Your task to perform on an android device: Search for the new Air Jordan 13 on Nike.com Image 0: 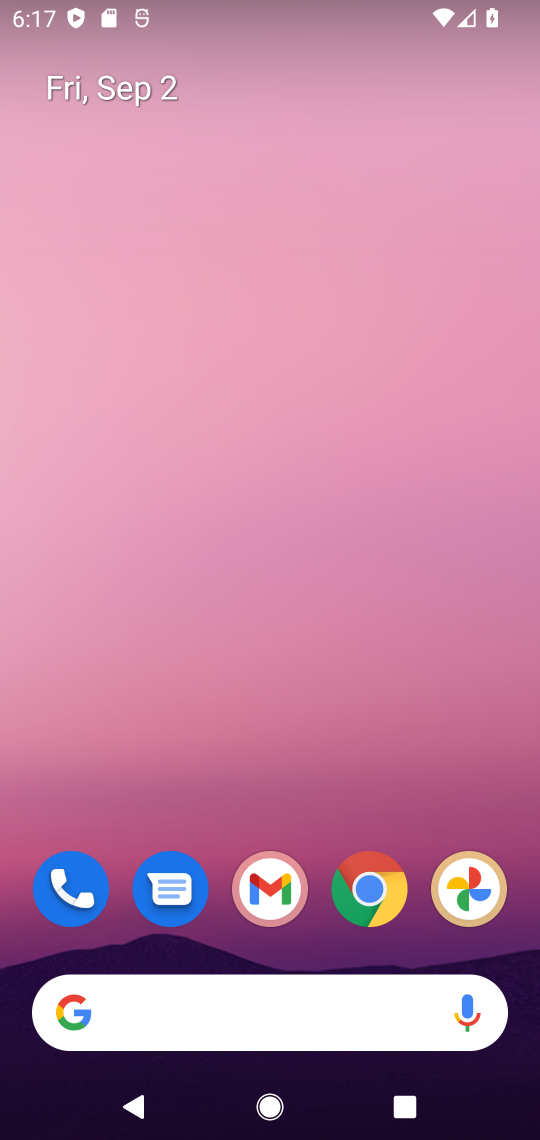
Step 0: click (255, 993)
Your task to perform on an android device: Search for the new Air Jordan 13 on Nike.com Image 1: 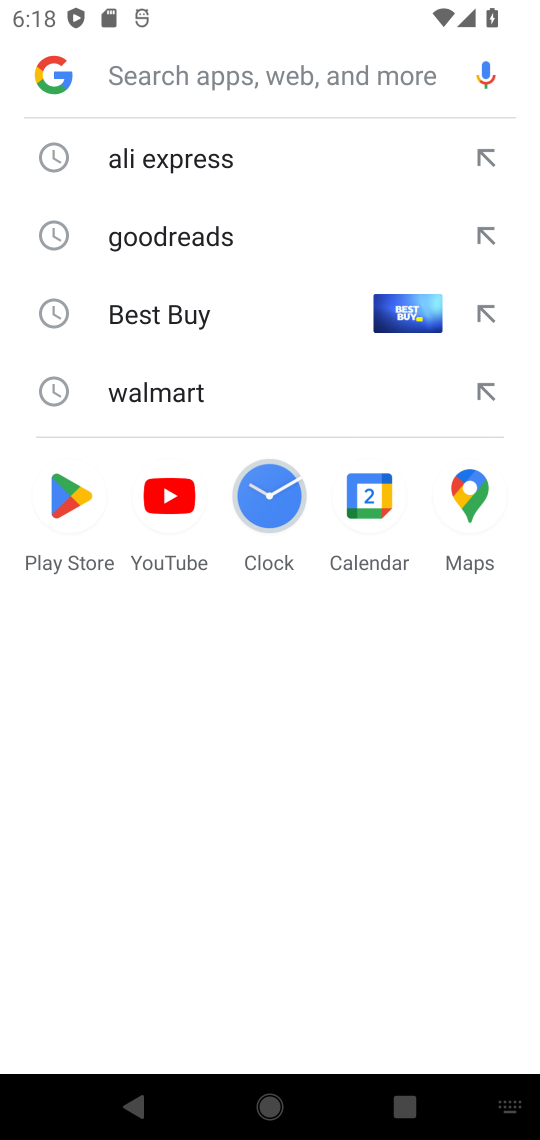
Step 1: type "Nike.com"
Your task to perform on an android device: Search for the new Air Jordan 13 on Nike.com Image 2: 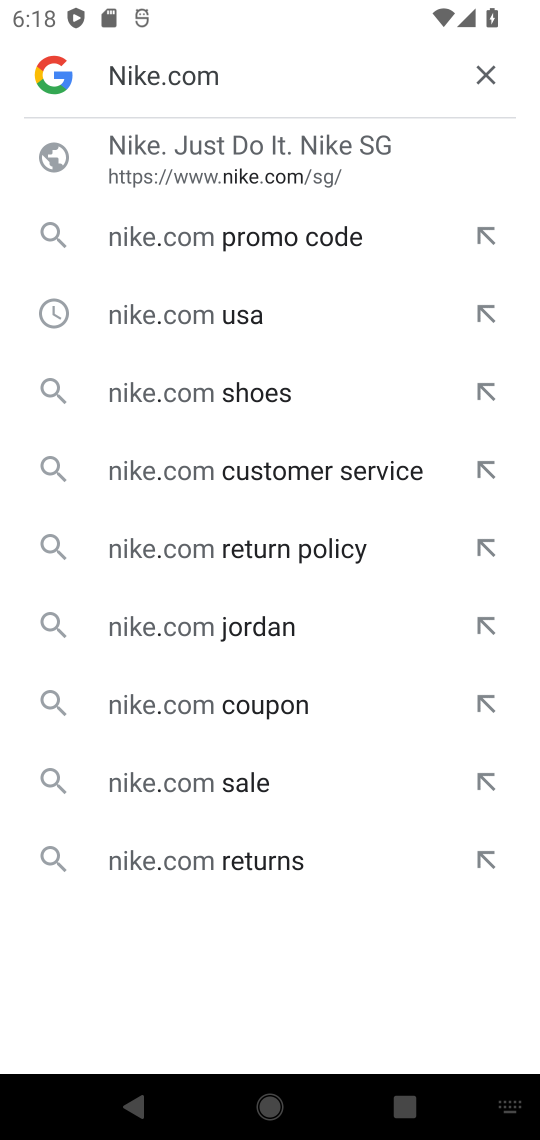
Step 2: click (297, 315)
Your task to perform on an android device: Search for the new Air Jordan 13 on Nike.com Image 3: 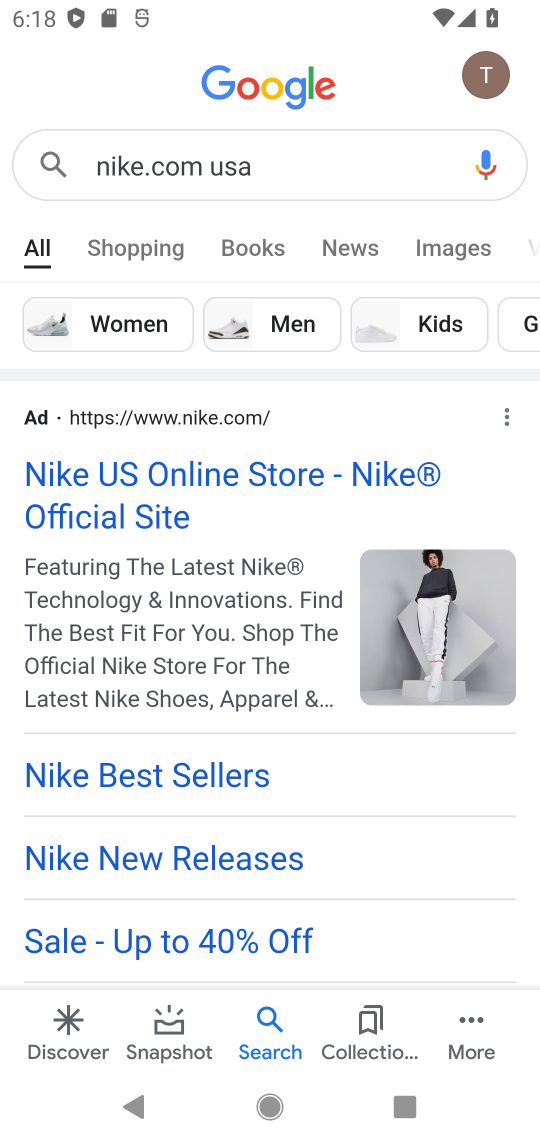
Step 3: drag from (228, 916) to (242, 484)
Your task to perform on an android device: Search for the new Air Jordan 13 on Nike.com Image 4: 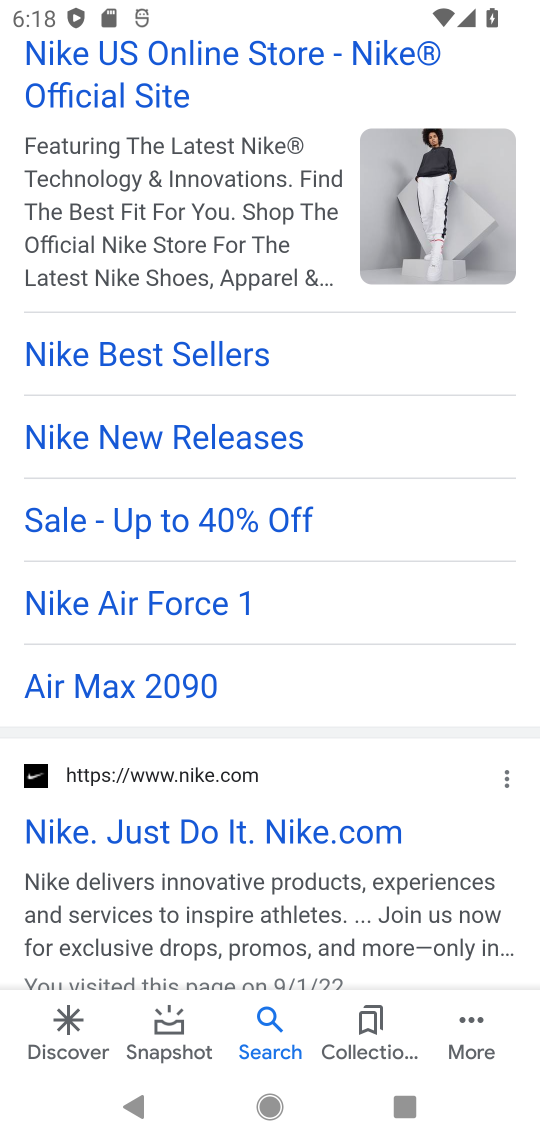
Step 4: drag from (269, 812) to (252, 273)
Your task to perform on an android device: Search for the new Air Jordan 13 on Nike.com Image 5: 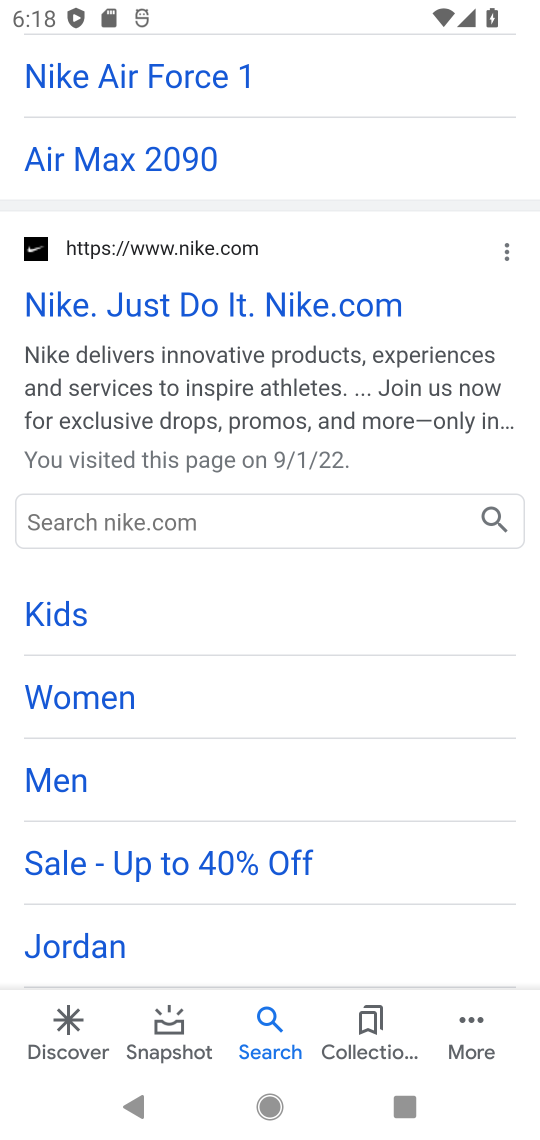
Step 5: click (234, 674)
Your task to perform on an android device: Search for the new Air Jordan 13 on Nike.com Image 6: 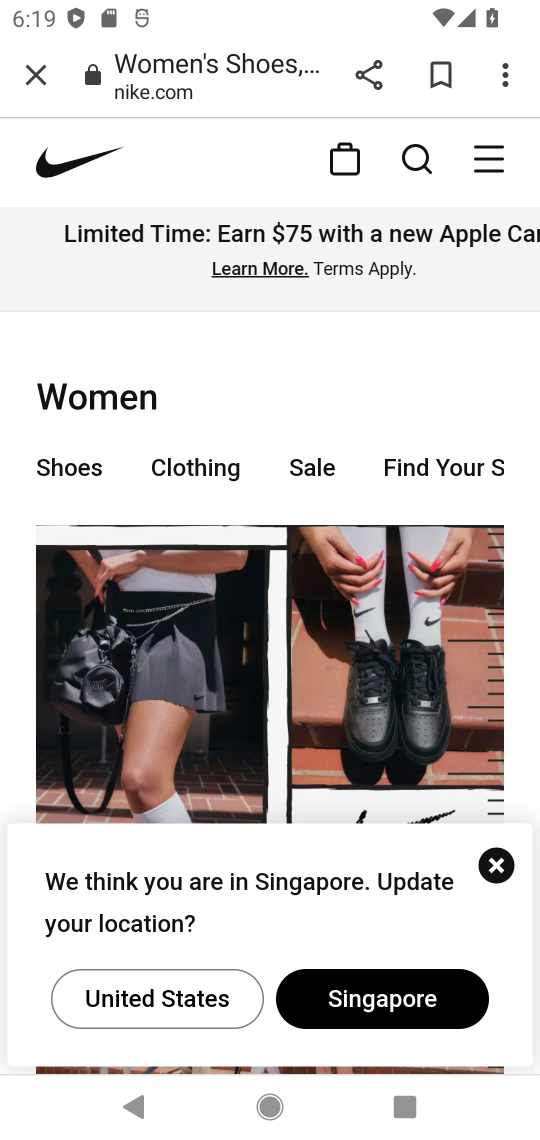
Step 6: click (402, 163)
Your task to perform on an android device: Search for the new Air Jordan 13 on Nike.com Image 7: 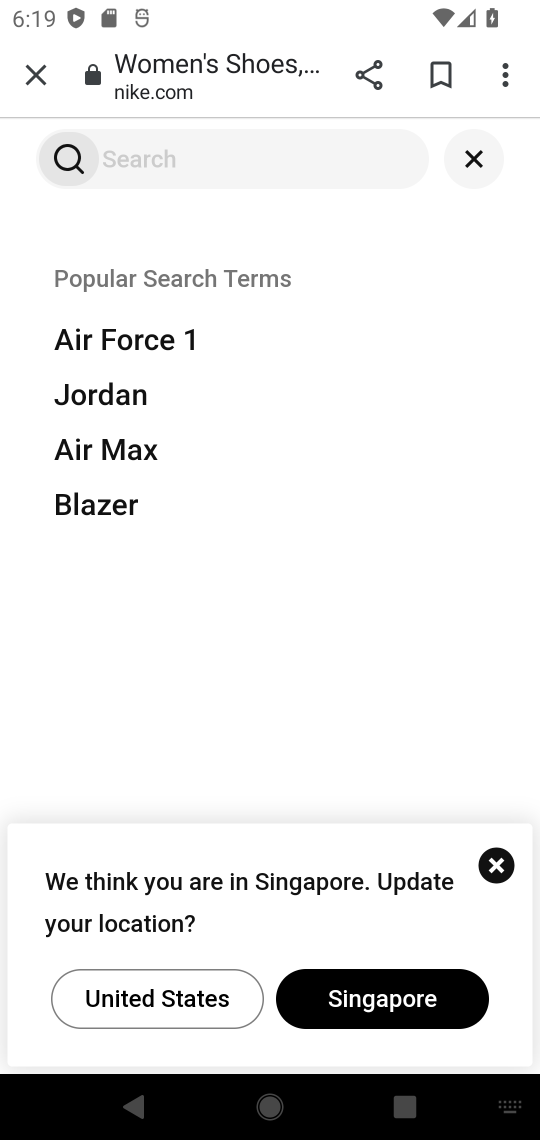
Step 7: type "new Air Jordan 13"
Your task to perform on an android device: Search for the new Air Jordan 13 on Nike.com Image 8: 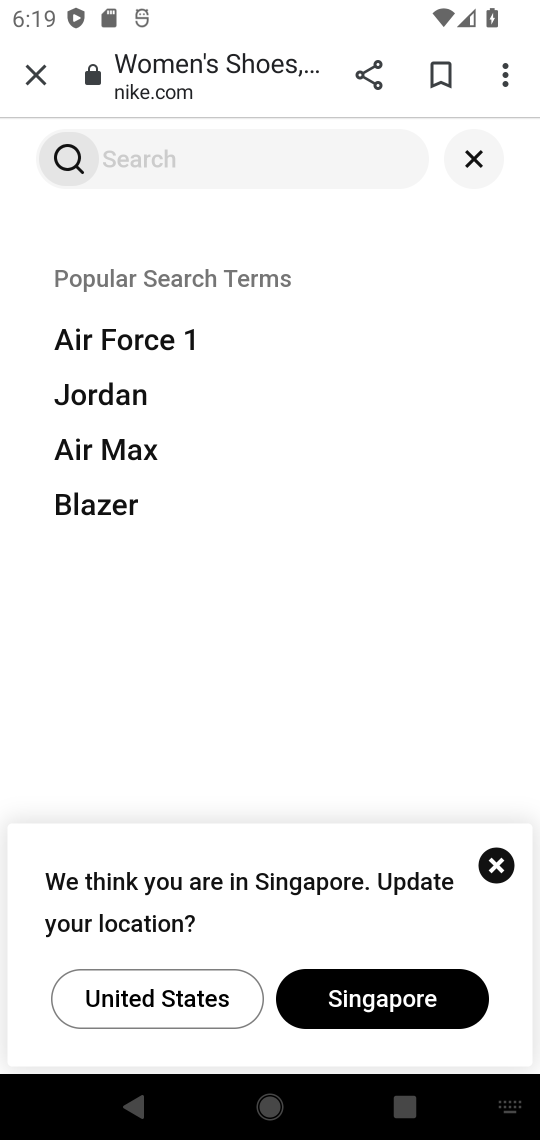
Step 8: type ""
Your task to perform on an android device: Search for the new Air Jordan 13 on Nike.com Image 9: 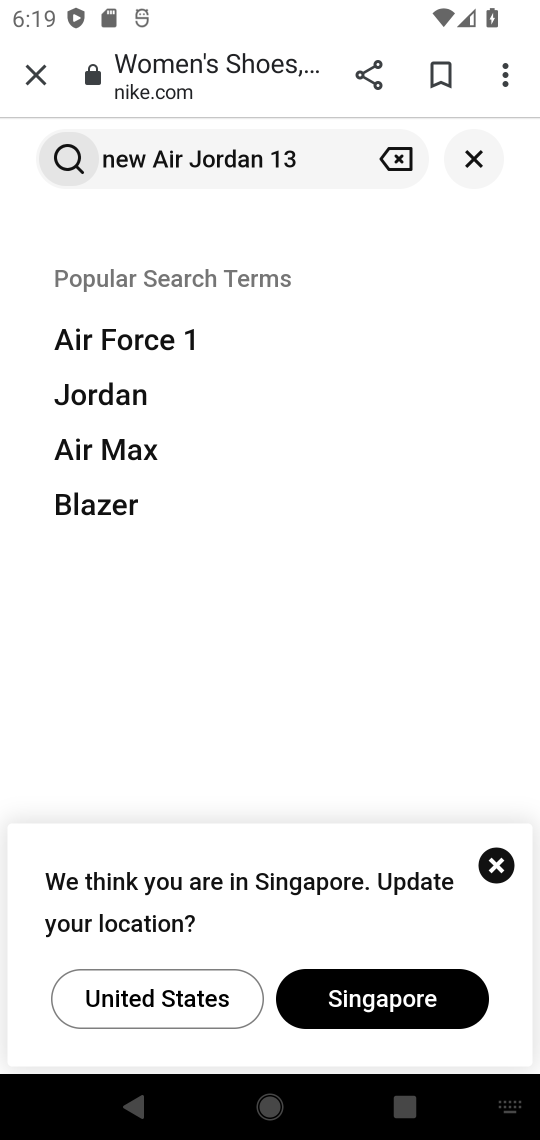
Step 9: click (81, 153)
Your task to perform on an android device: Search for the new Air Jordan 13 on Nike.com Image 10: 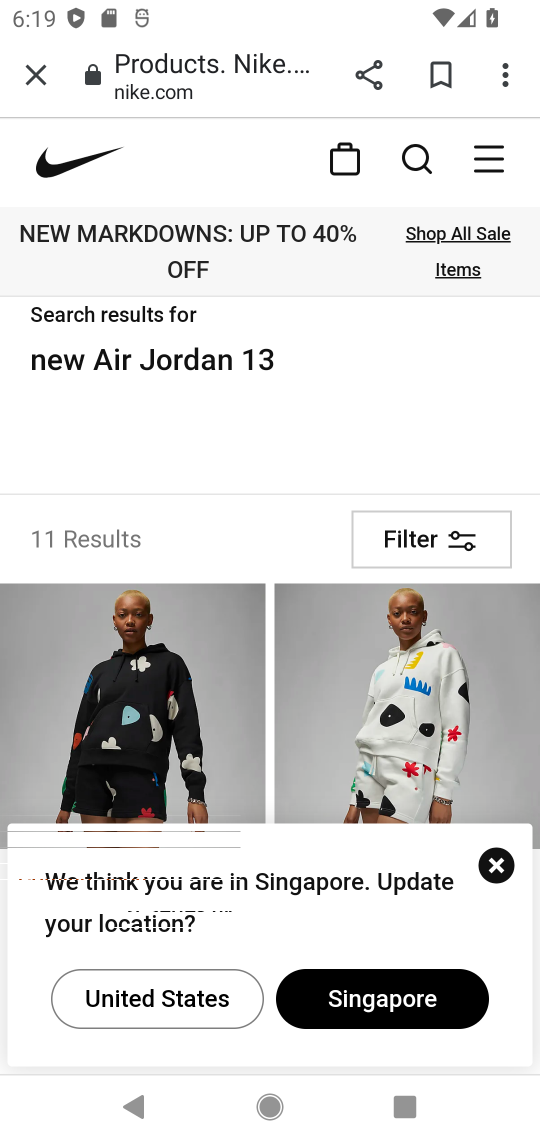
Step 10: drag from (262, 793) to (260, 316)
Your task to perform on an android device: Search for the new Air Jordan 13 on Nike.com Image 11: 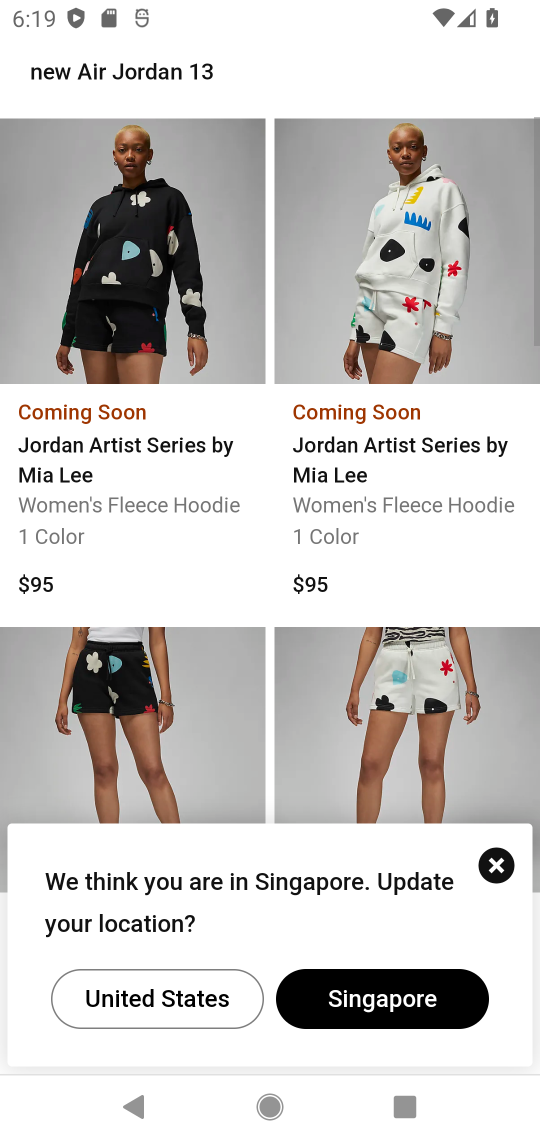
Step 11: drag from (313, 743) to (290, 341)
Your task to perform on an android device: Search for the new Air Jordan 13 on Nike.com Image 12: 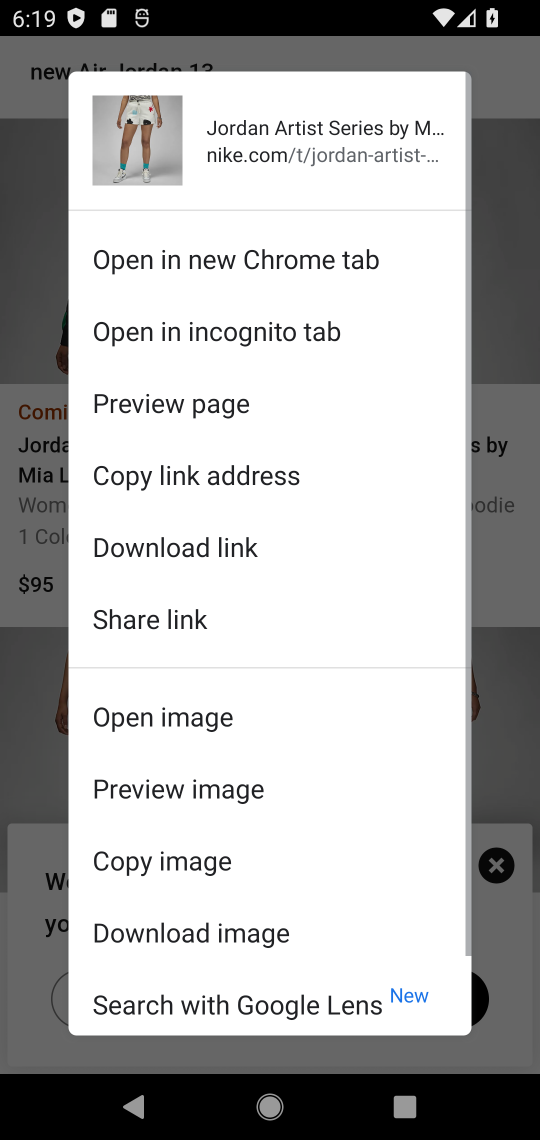
Step 12: click (499, 419)
Your task to perform on an android device: Search for the new Air Jordan 13 on Nike.com Image 13: 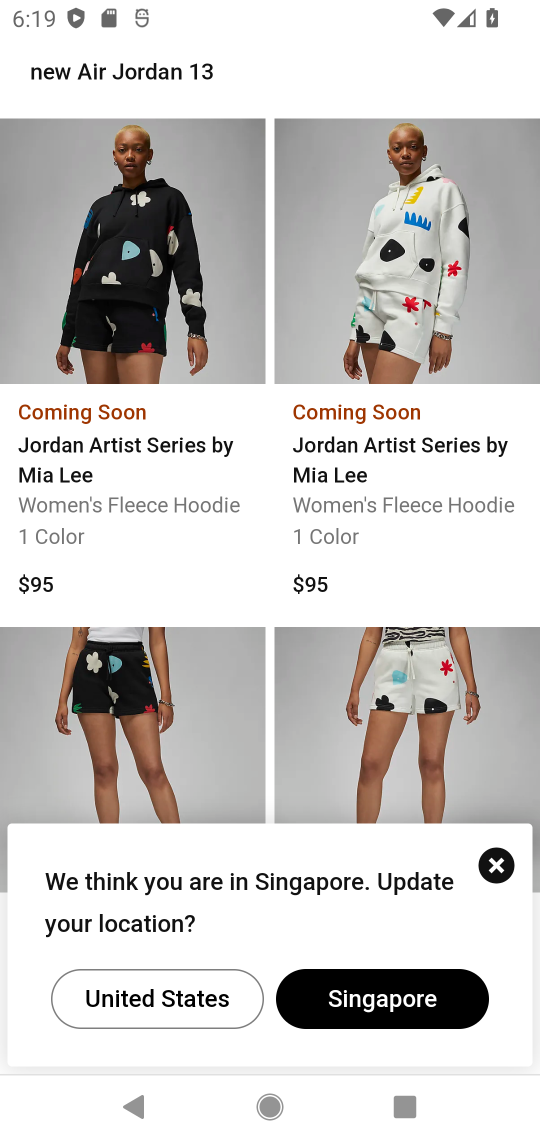
Step 13: click (502, 848)
Your task to perform on an android device: Search for the new Air Jordan 13 on Nike.com Image 14: 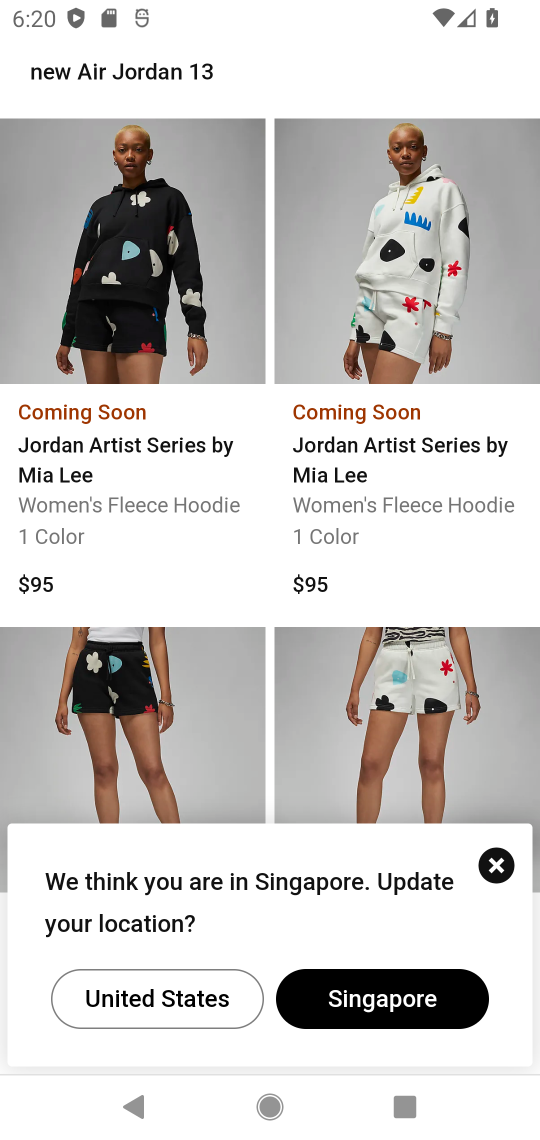
Step 14: task complete